Your task to perform on an android device: toggle javascript in the chrome app Image 0: 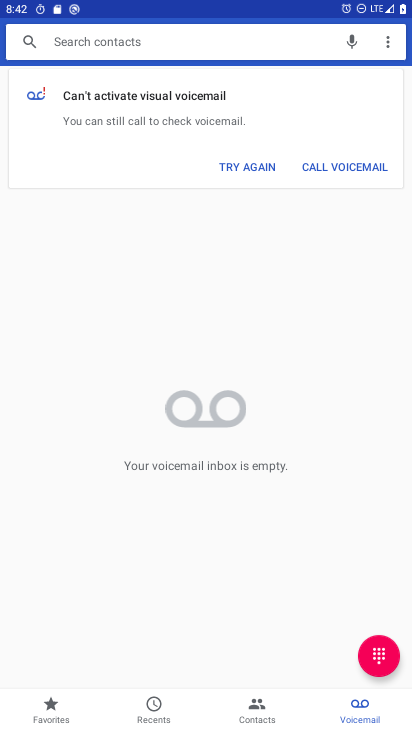
Step 0: press home button
Your task to perform on an android device: toggle javascript in the chrome app Image 1: 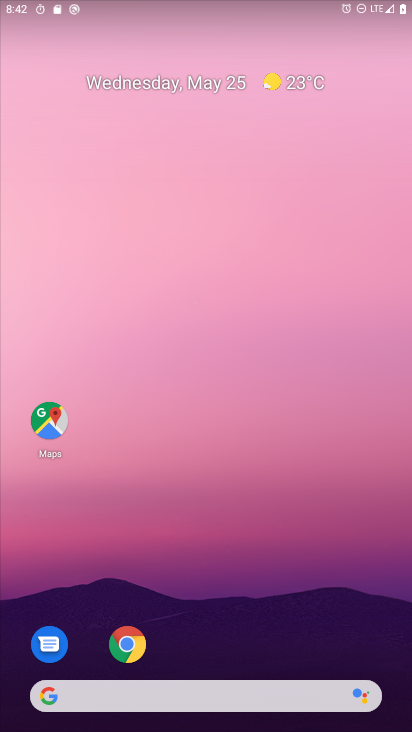
Step 1: drag from (399, 663) to (291, 112)
Your task to perform on an android device: toggle javascript in the chrome app Image 2: 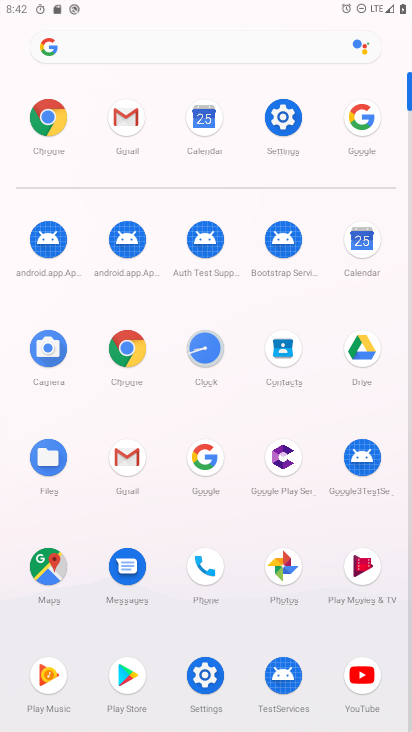
Step 2: click (148, 349)
Your task to perform on an android device: toggle javascript in the chrome app Image 3: 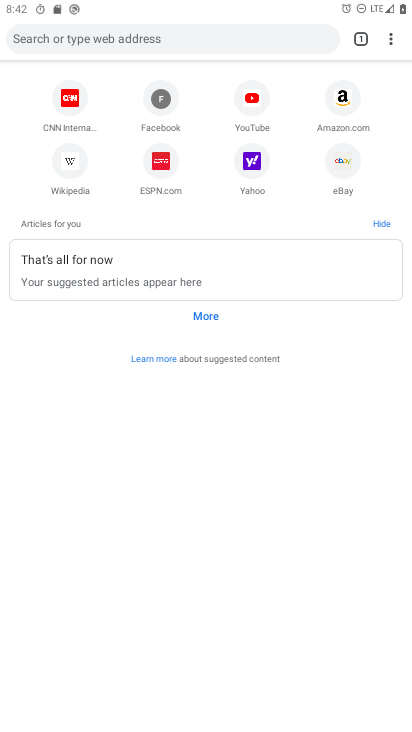
Step 3: click (390, 40)
Your task to perform on an android device: toggle javascript in the chrome app Image 4: 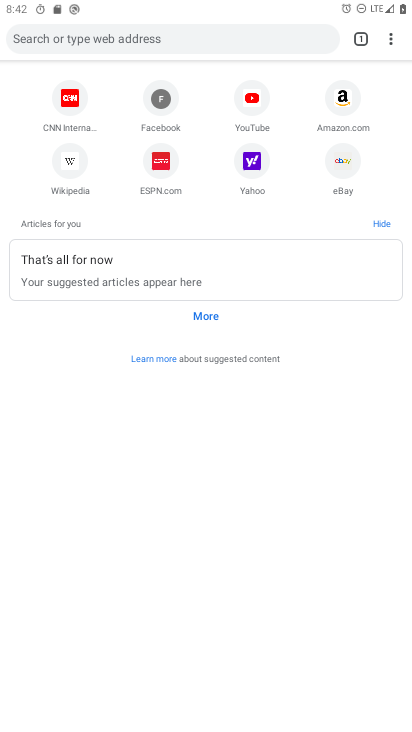
Step 4: click (388, 31)
Your task to perform on an android device: toggle javascript in the chrome app Image 5: 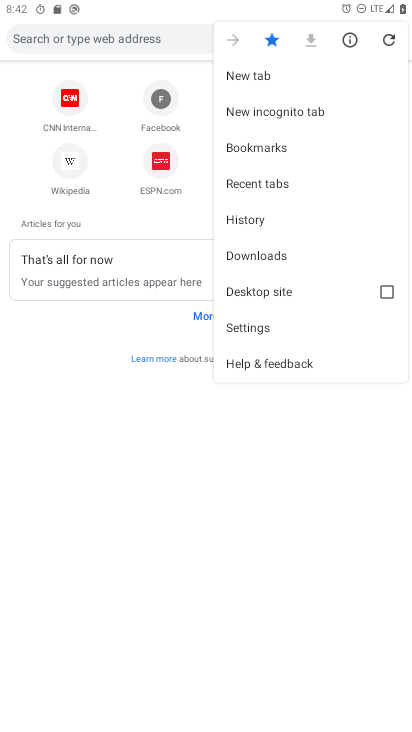
Step 5: click (267, 325)
Your task to perform on an android device: toggle javascript in the chrome app Image 6: 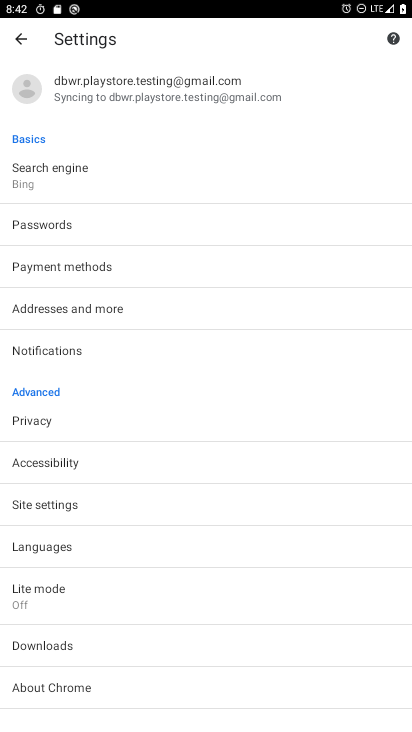
Step 6: click (108, 500)
Your task to perform on an android device: toggle javascript in the chrome app Image 7: 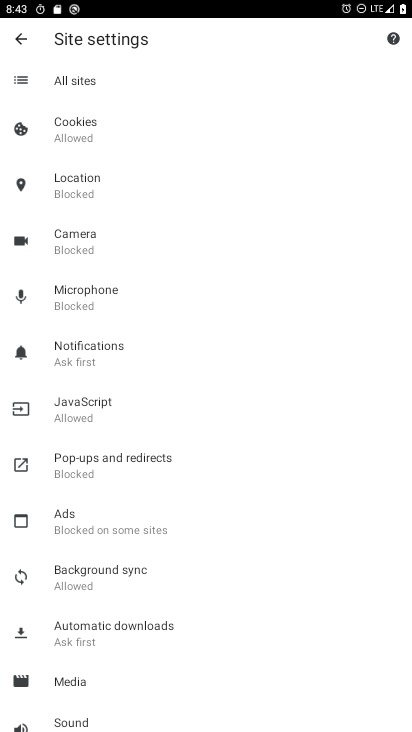
Step 7: click (83, 403)
Your task to perform on an android device: toggle javascript in the chrome app Image 8: 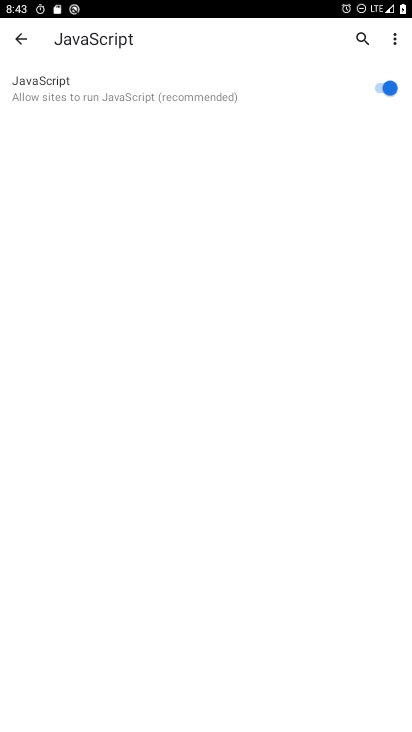
Step 8: click (357, 99)
Your task to perform on an android device: toggle javascript in the chrome app Image 9: 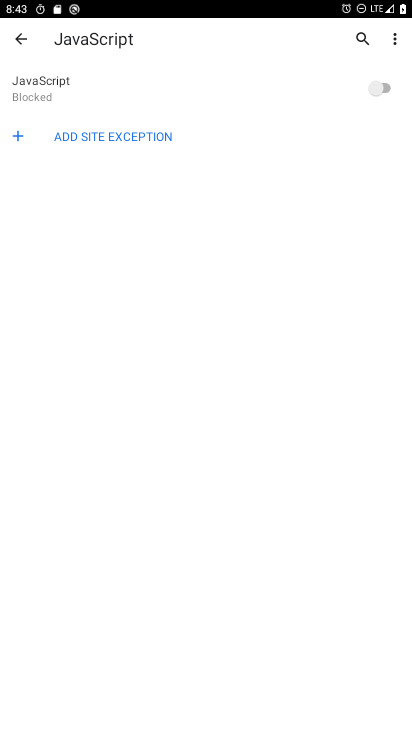
Step 9: task complete